Your task to perform on an android device: Search for seafood restaurants on Google Maps Image 0: 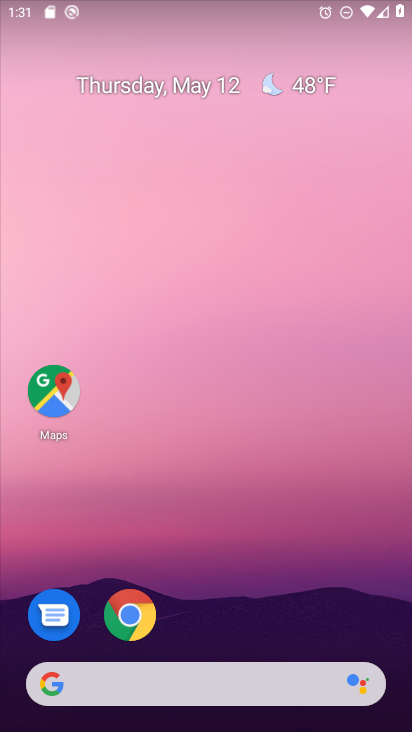
Step 0: drag from (296, 657) to (281, 37)
Your task to perform on an android device: Search for seafood restaurants on Google Maps Image 1: 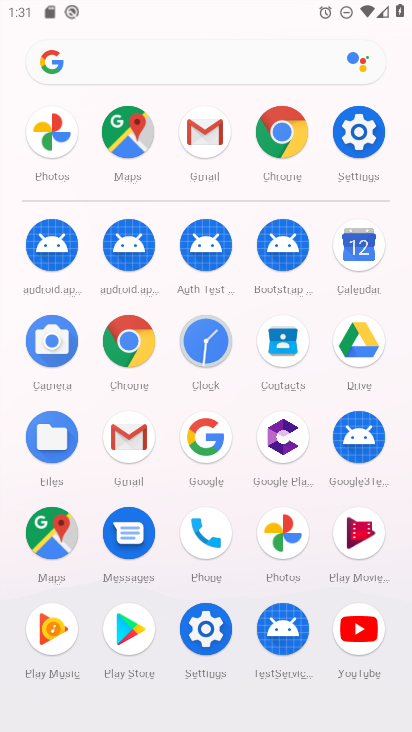
Step 1: click (61, 530)
Your task to perform on an android device: Search for seafood restaurants on Google Maps Image 2: 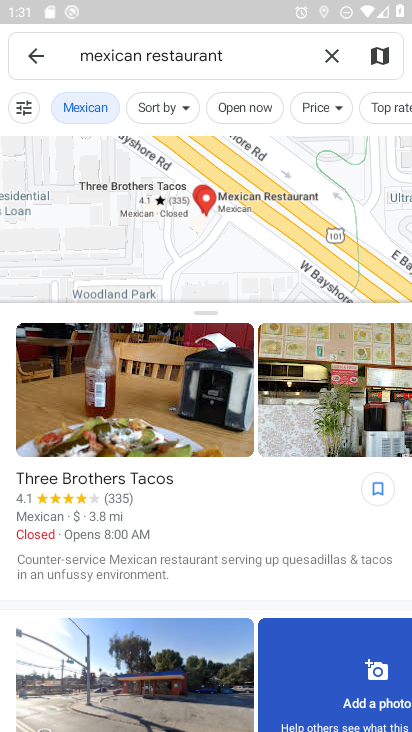
Step 2: click (327, 53)
Your task to perform on an android device: Search for seafood restaurants on Google Maps Image 3: 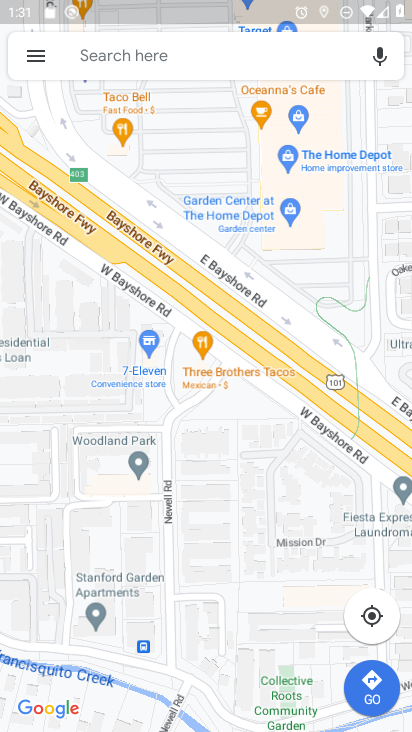
Step 3: click (263, 53)
Your task to perform on an android device: Search for seafood restaurants on Google Maps Image 4: 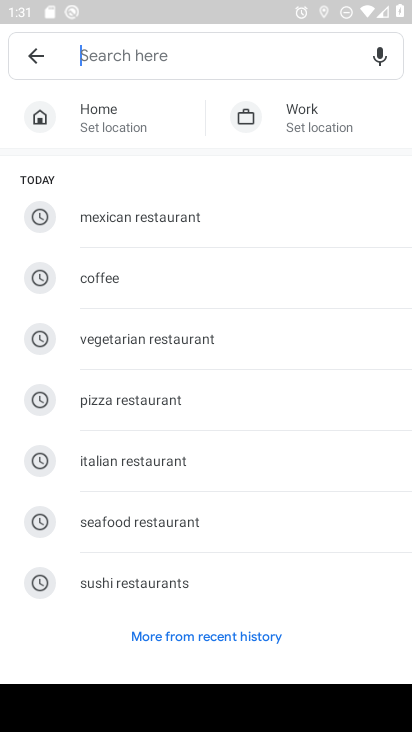
Step 4: click (138, 518)
Your task to perform on an android device: Search for seafood restaurants on Google Maps Image 5: 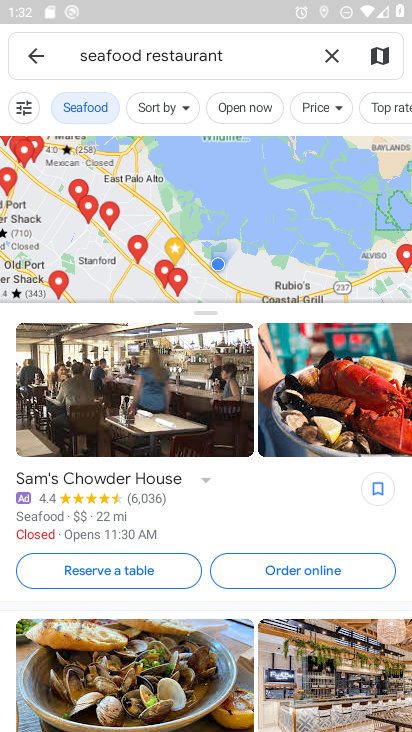
Step 5: task complete